Your task to perform on an android device: Turn off the flashlight Image 0: 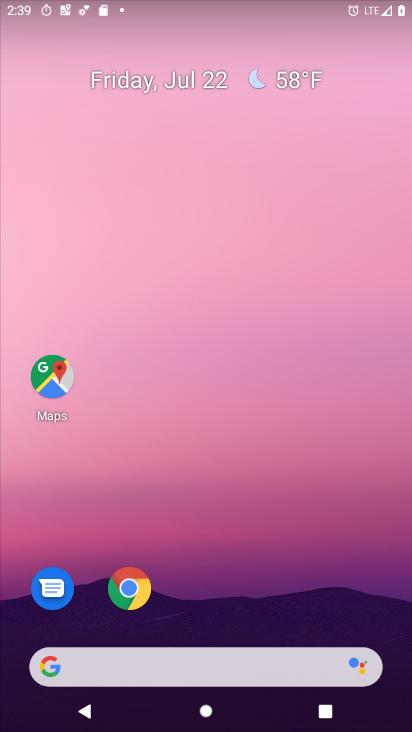
Step 0: drag from (199, 7) to (162, 519)
Your task to perform on an android device: Turn off the flashlight Image 1: 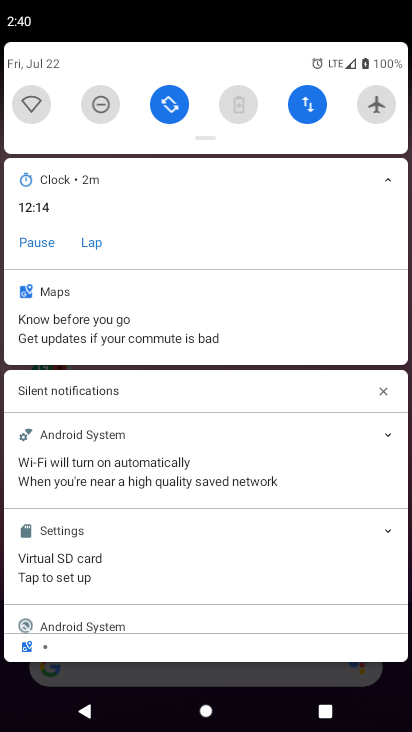
Step 1: task complete